Your task to perform on an android device: remove spam from my inbox in the gmail app Image 0: 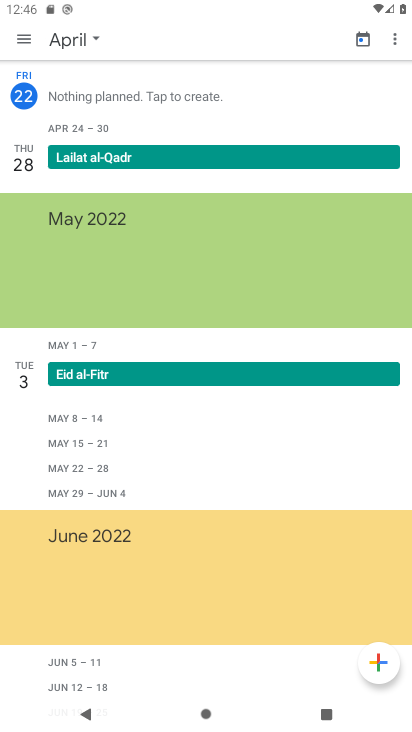
Step 0: press home button
Your task to perform on an android device: remove spam from my inbox in the gmail app Image 1: 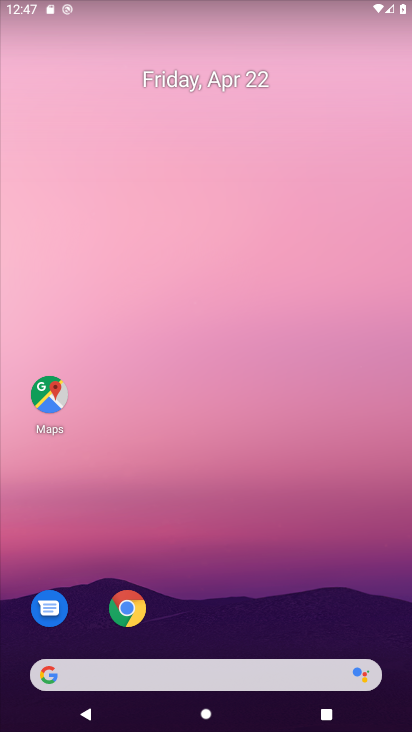
Step 1: drag from (218, 623) to (61, 6)
Your task to perform on an android device: remove spam from my inbox in the gmail app Image 2: 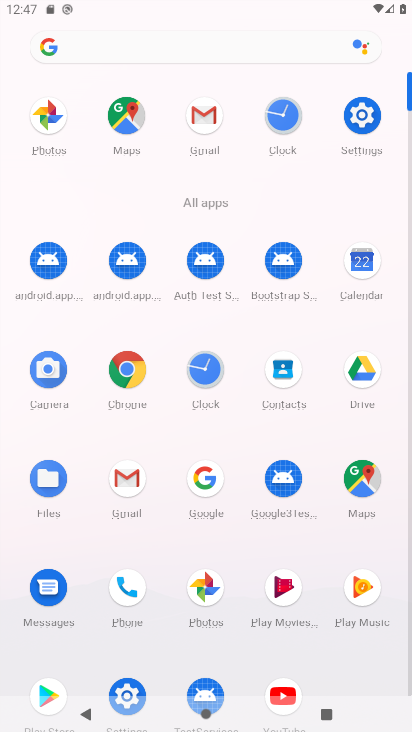
Step 2: click (197, 113)
Your task to perform on an android device: remove spam from my inbox in the gmail app Image 3: 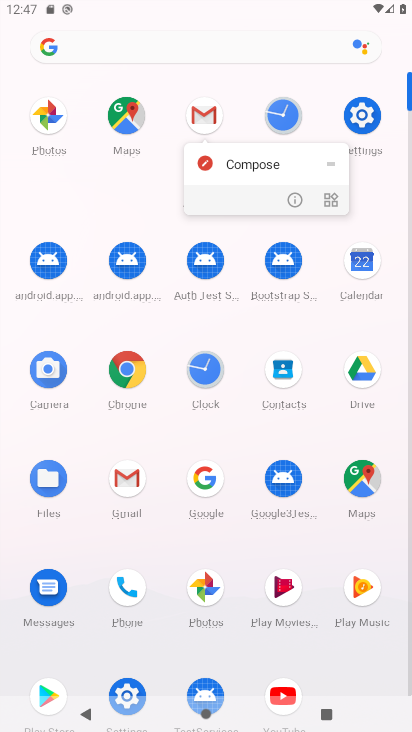
Step 3: click (203, 104)
Your task to perform on an android device: remove spam from my inbox in the gmail app Image 4: 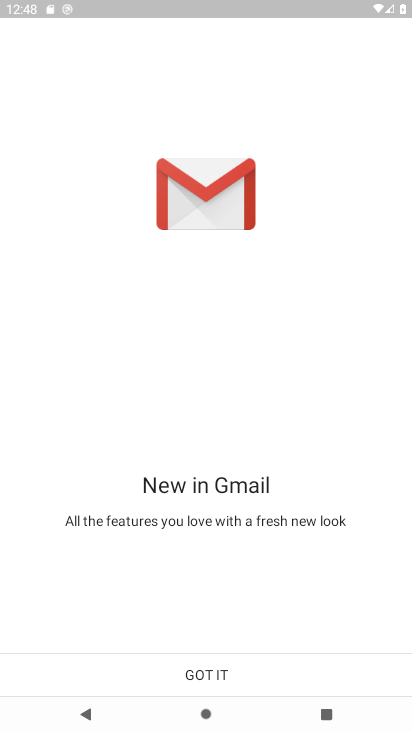
Step 4: click (254, 674)
Your task to perform on an android device: remove spam from my inbox in the gmail app Image 5: 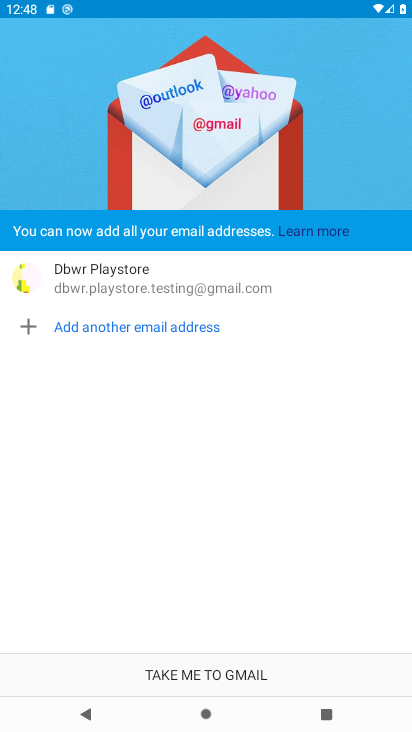
Step 5: click (254, 674)
Your task to perform on an android device: remove spam from my inbox in the gmail app Image 6: 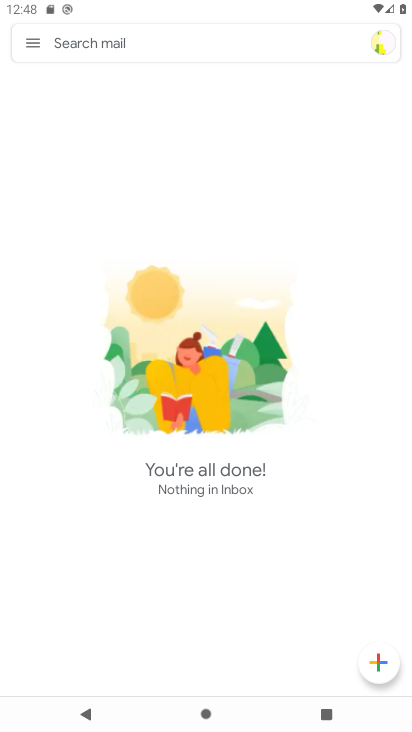
Step 6: click (40, 39)
Your task to perform on an android device: remove spam from my inbox in the gmail app Image 7: 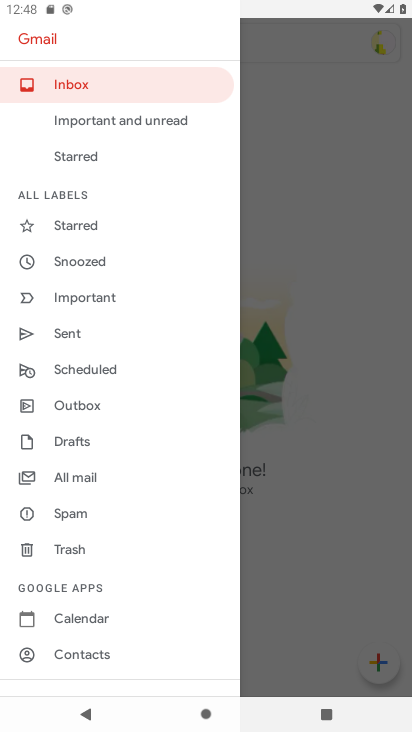
Step 7: task complete